Your task to perform on an android device: set the stopwatch Image 0: 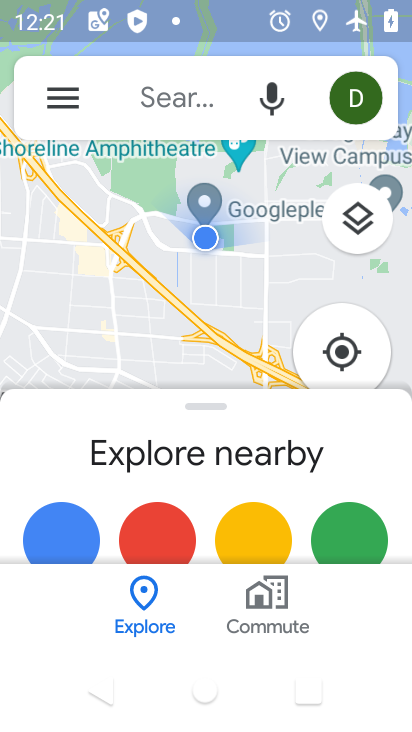
Step 0: press home button
Your task to perform on an android device: set the stopwatch Image 1: 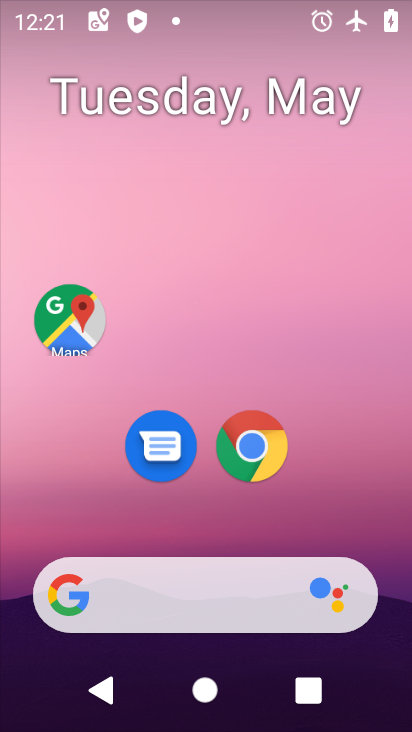
Step 1: drag from (308, 496) to (349, 183)
Your task to perform on an android device: set the stopwatch Image 2: 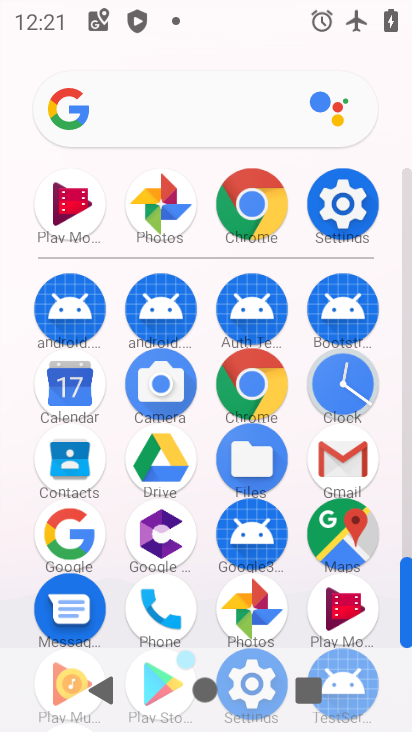
Step 2: click (338, 376)
Your task to perform on an android device: set the stopwatch Image 3: 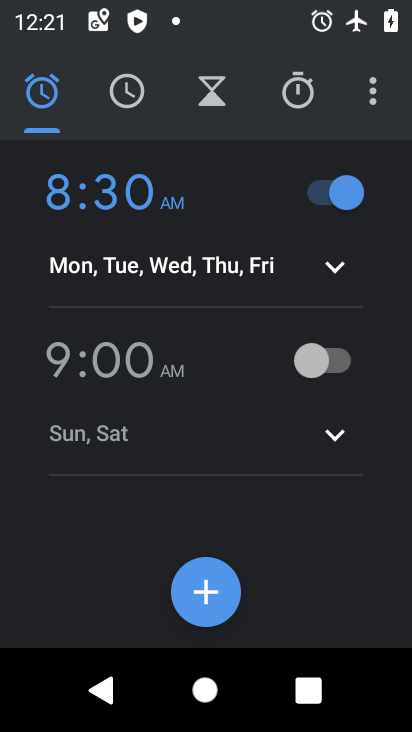
Step 3: click (304, 87)
Your task to perform on an android device: set the stopwatch Image 4: 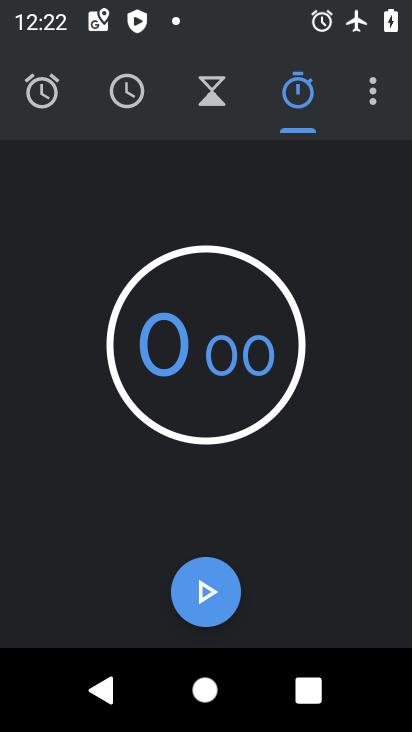
Step 4: task complete